Your task to perform on an android device: see tabs open on other devices in the chrome app Image 0: 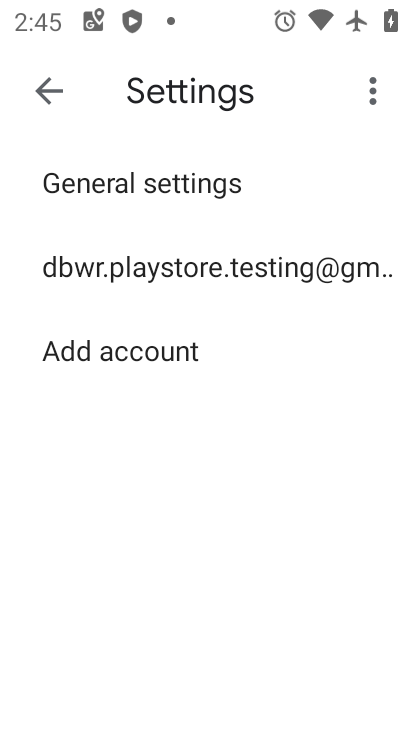
Step 0: press home button
Your task to perform on an android device: see tabs open on other devices in the chrome app Image 1: 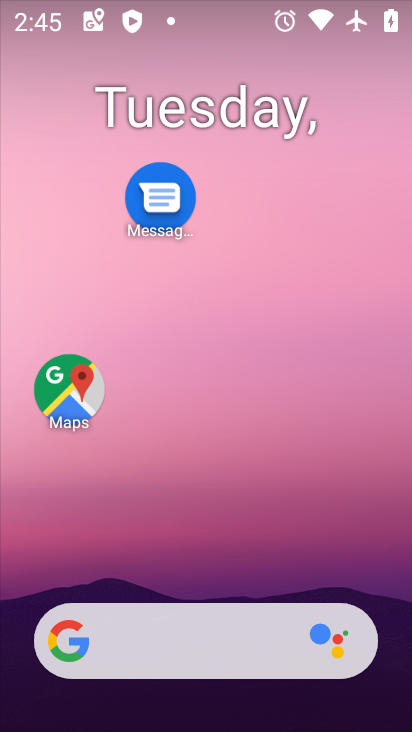
Step 1: drag from (220, 564) to (235, 186)
Your task to perform on an android device: see tabs open on other devices in the chrome app Image 2: 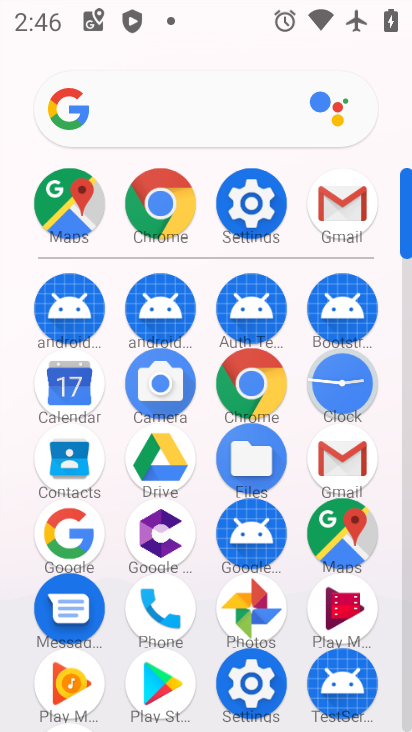
Step 2: click (178, 205)
Your task to perform on an android device: see tabs open on other devices in the chrome app Image 3: 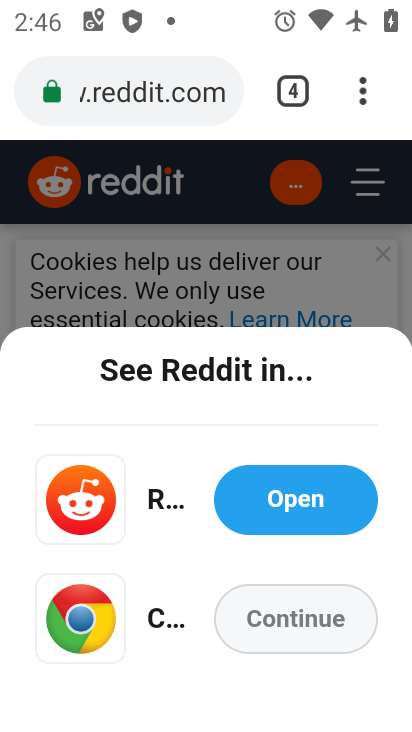
Step 3: click (286, 608)
Your task to perform on an android device: see tabs open on other devices in the chrome app Image 4: 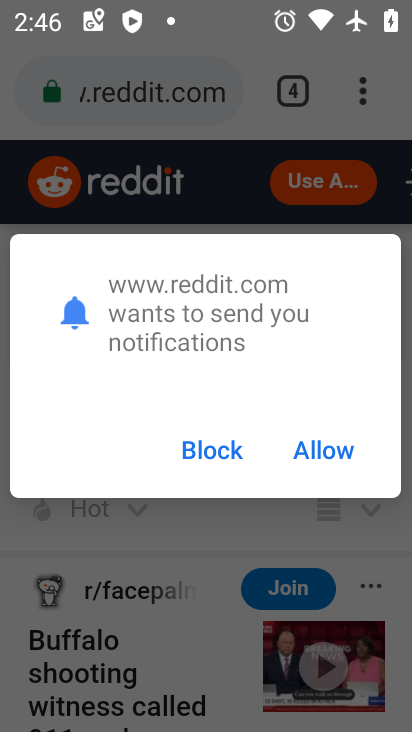
Step 4: click (331, 434)
Your task to perform on an android device: see tabs open on other devices in the chrome app Image 5: 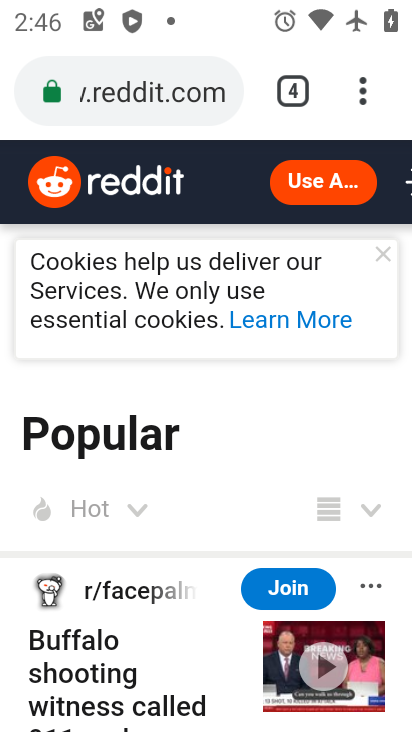
Step 5: click (364, 85)
Your task to perform on an android device: see tabs open on other devices in the chrome app Image 6: 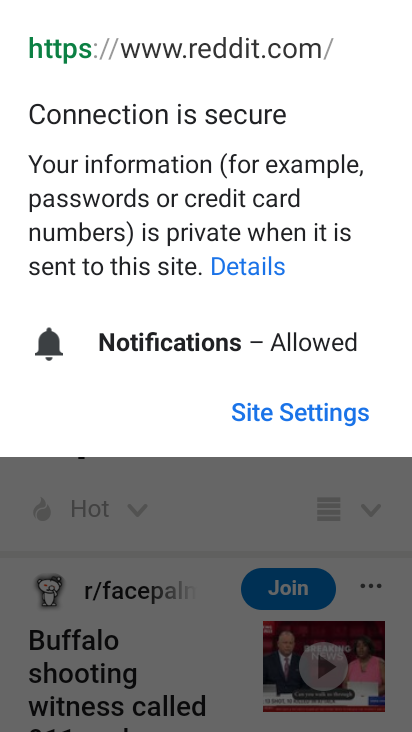
Step 6: click (206, 506)
Your task to perform on an android device: see tabs open on other devices in the chrome app Image 7: 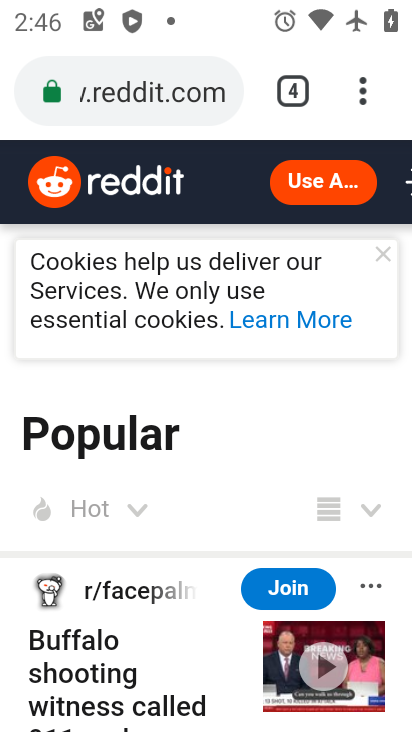
Step 7: click (373, 68)
Your task to perform on an android device: see tabs open on other devices in the chrome app Image 8: 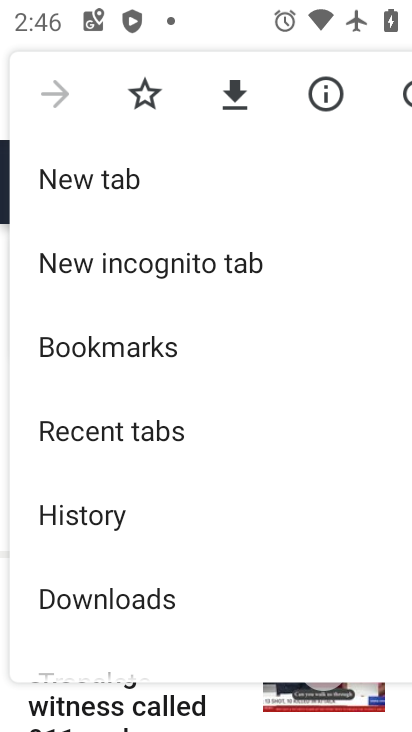
Step 8: click (149, 420)
Your task to perform on an android device: see tabs open on other devices in the chrome app Image 9: 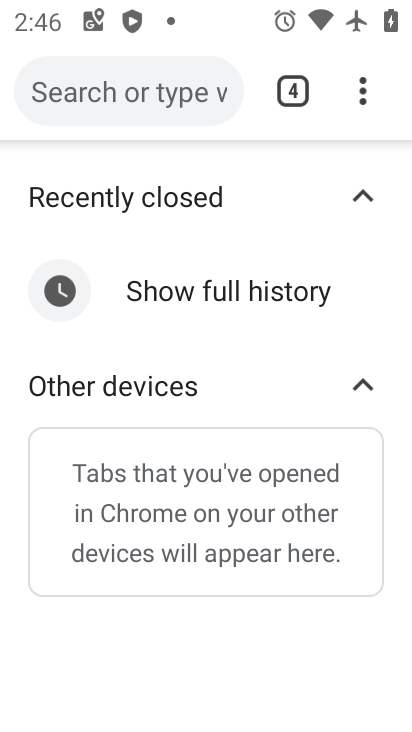
Step 9: task complete